Your task to perform on an android device: Open accessibility settings Image 0: 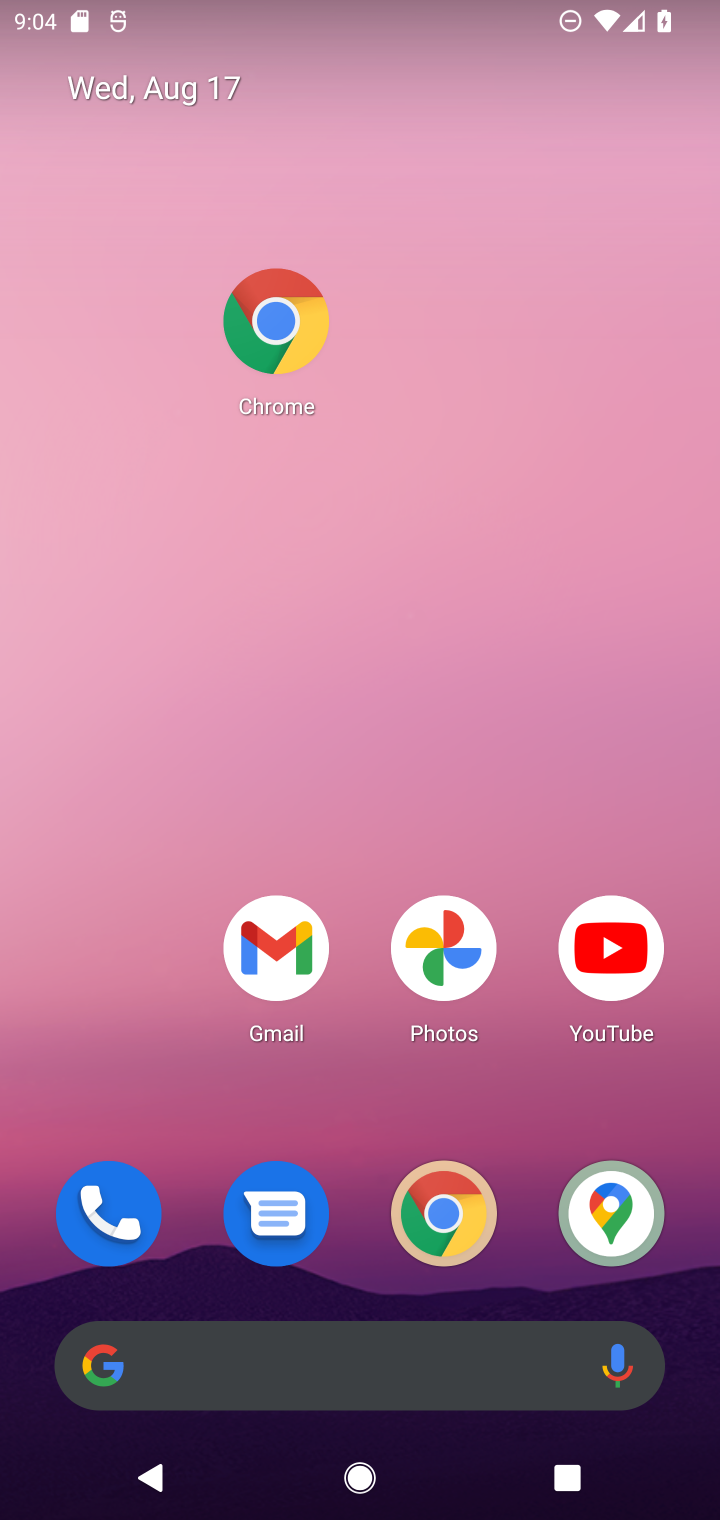
Step 0: drag from (386, 1313) to (300, 391)
Your task to perform on an android device: Open accessibility settings Image 1: 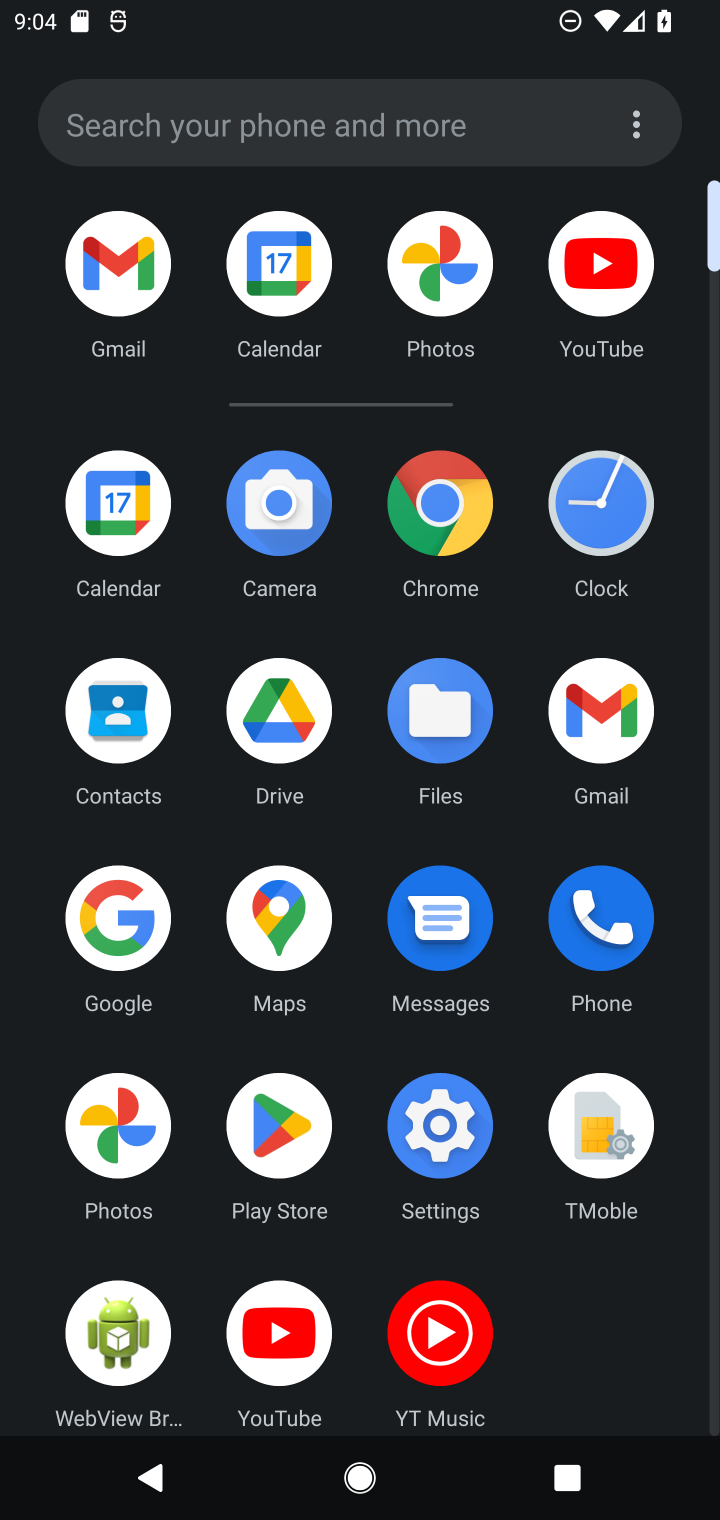
Step 1: click (440, 1149)
Your task to perform on an android device: Open accessibility settings Image 2: 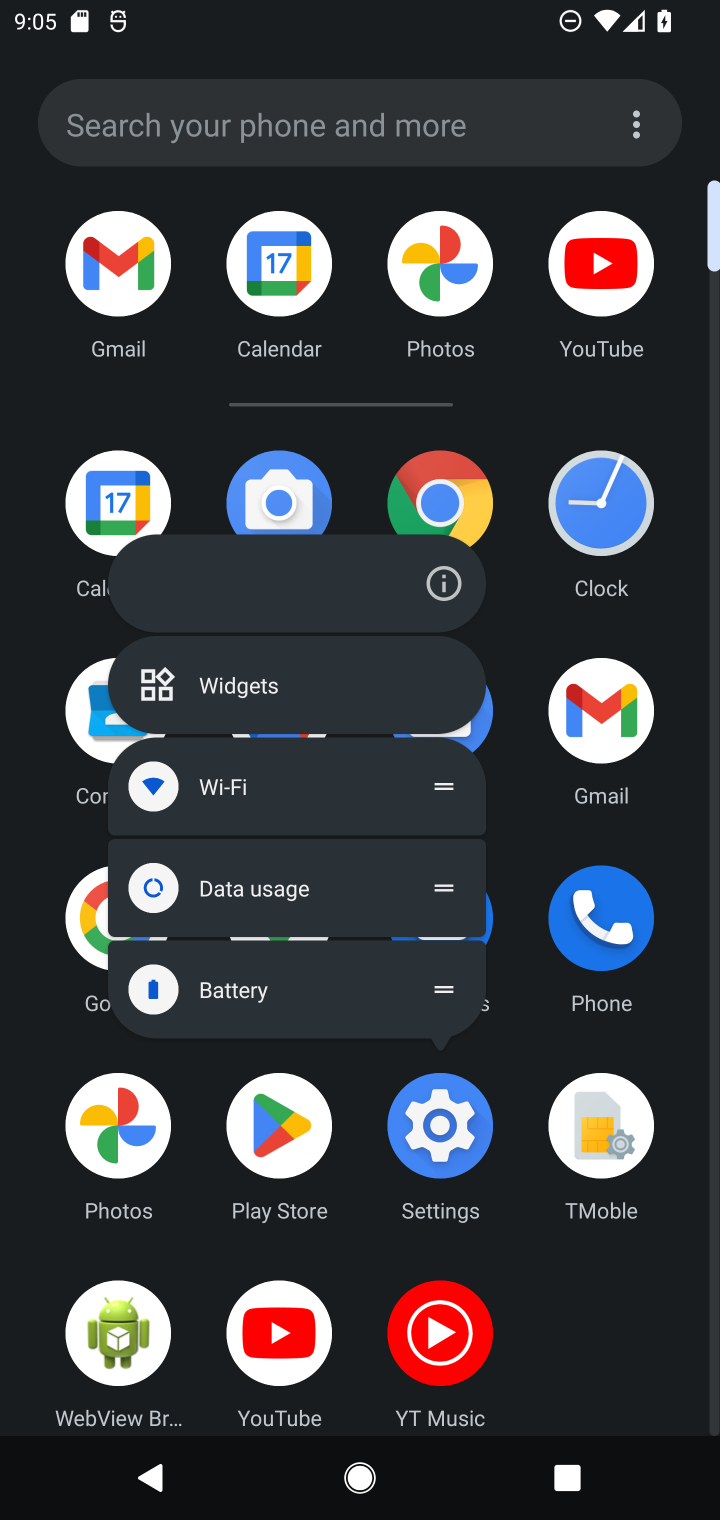
Step 2: click (440, 1149)
Your task to perform on an android device: Open accessibility settings Image 3: 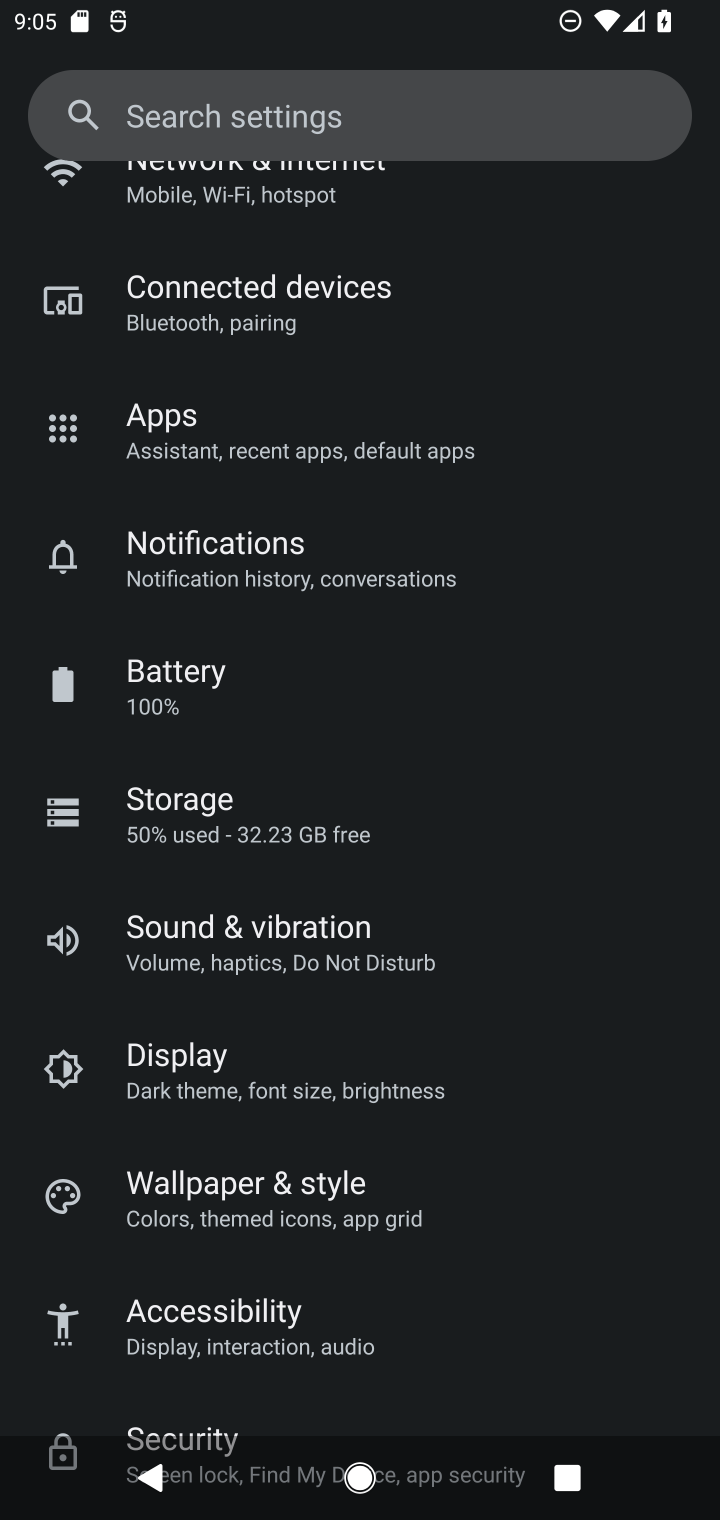
Step 3: click (362, 1318)
Your task to perform on an android device: Open accessibility settings Image 4: 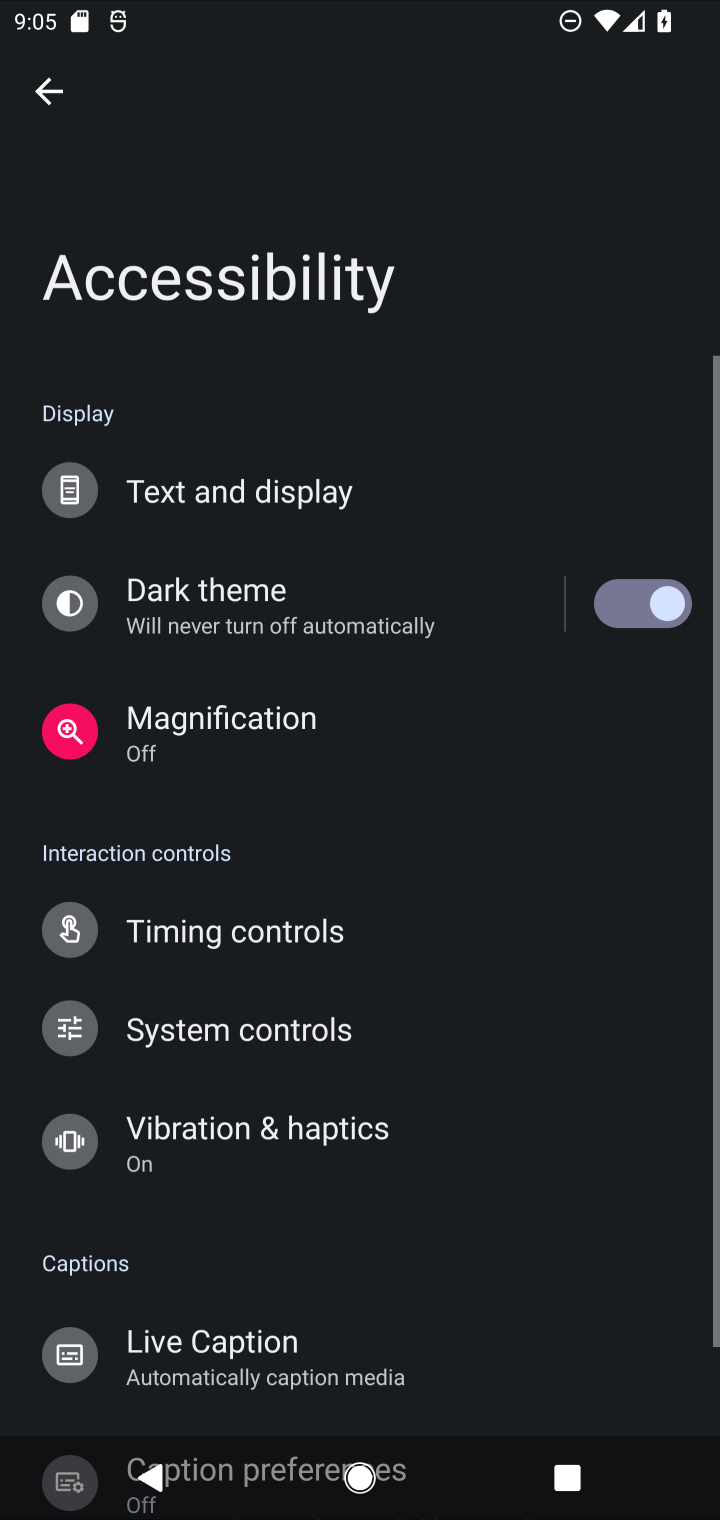
Step 4: task complete